Your task to perform on an android device: star an email in the gmail app Image 0: 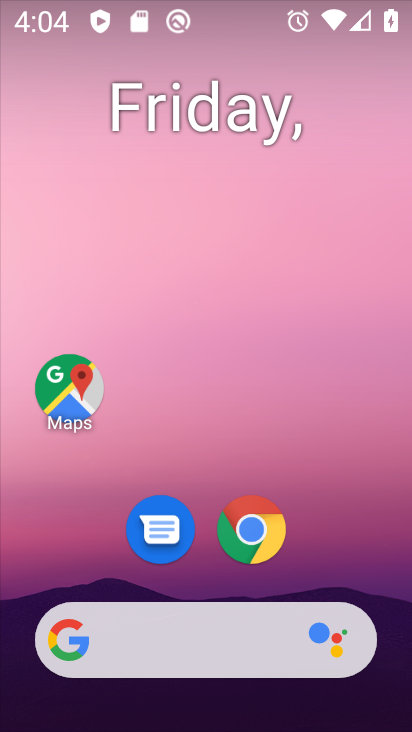
Step 0: drag from (101, 593) to (222, 131)
Your task to perform on an android device: star an email in the gmail app Image 1: 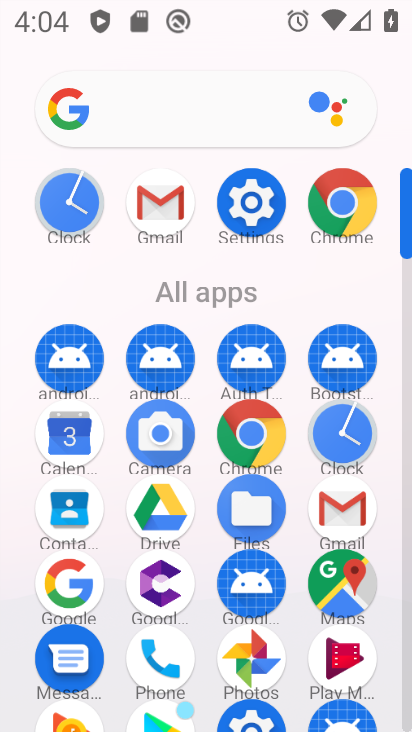
Step 1: drag from (126, 596) to (214, 403)
Your task to perform on an android device: star an email in the gmail app Image 2: 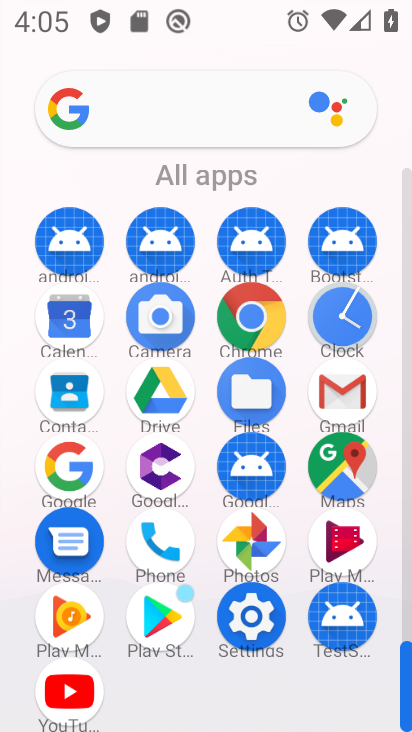
Step 2: click (355, 375)
Your task to perform on an android device: star an email in the gmail app Image 3: 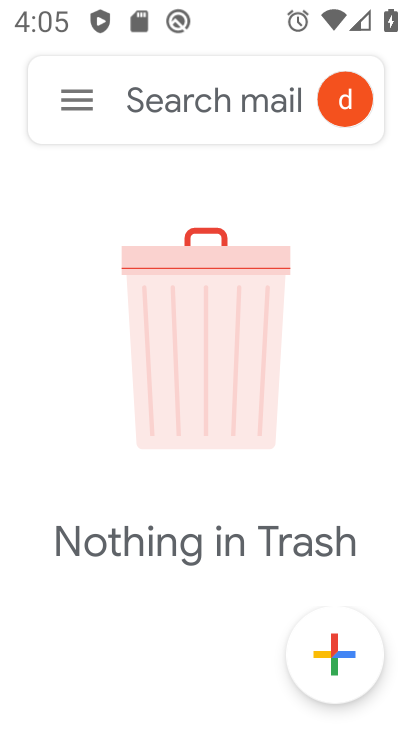
Step 3: click (60, 86)
Your task to perform on an android device: star an email in the gmail app Image 4: 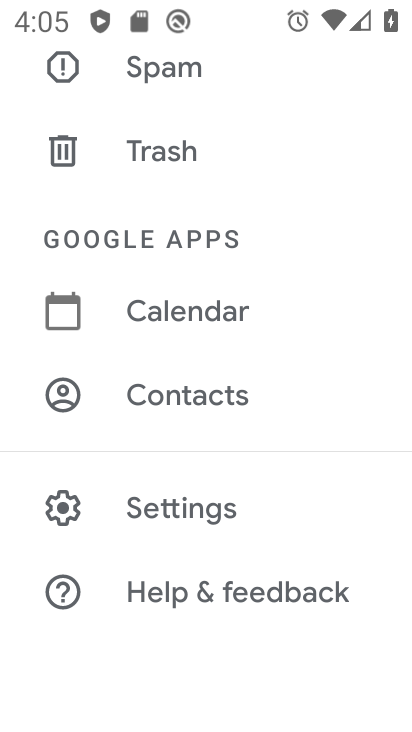
Step 4: drag from (169, 623) to (237, 623)
Your task to perform on an android device: star an email in the gmail app Image 5: 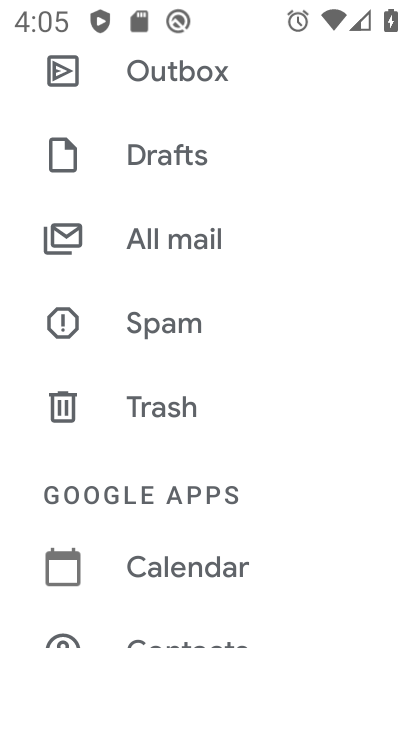
Step 5: click (261, 248)
Your task to perform on an android device: star an email in the gmail app Image 6: 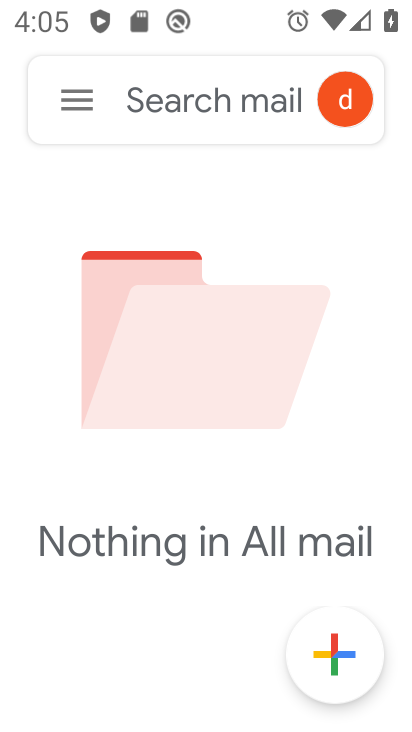
Step 6: task complete